Your task to perform on an android device: See recent photos Image 0: 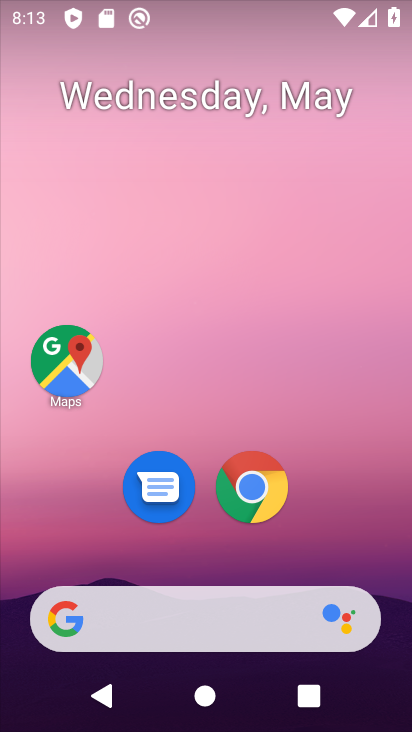
Step 0: drag from (329, 519) to (155, 50)
Your task to perform on an android device: See recent photos Image 1: 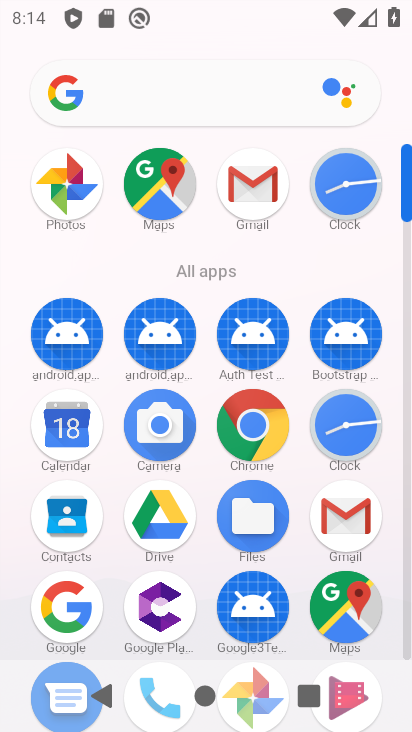
Step 1: drag from (208, 539) to (188, 287)
Your task to perform on an android device: See recent photos Image 2: 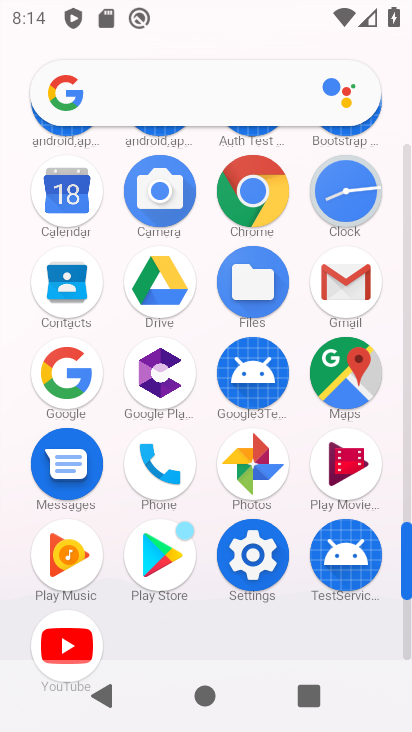
Step 2: click (248, 452)
Your task to perform on an android device: See recent photos Image 3: 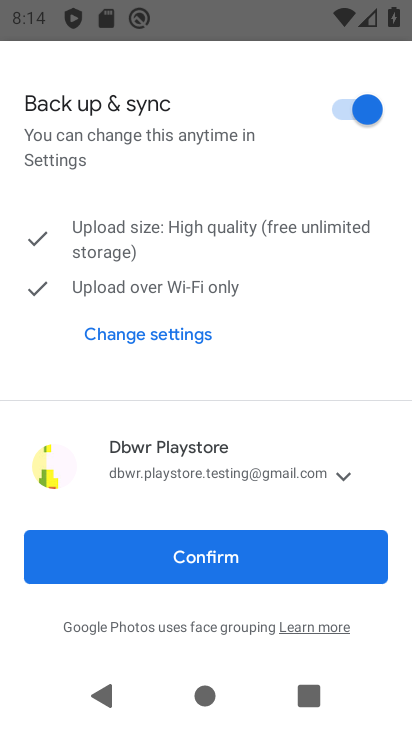
Step 3: click (227, 559)
Your task to perform on an android device: See recent photos Image 4: 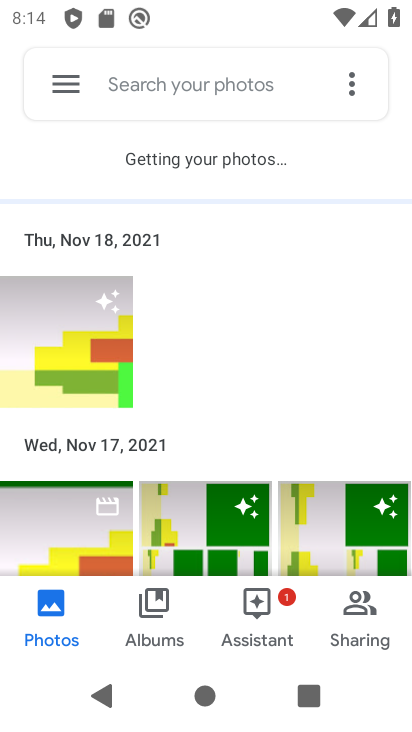
Step 4: task complete